Your task to perform on an android device: see tabs open on other devices in the chrome app Image 0: 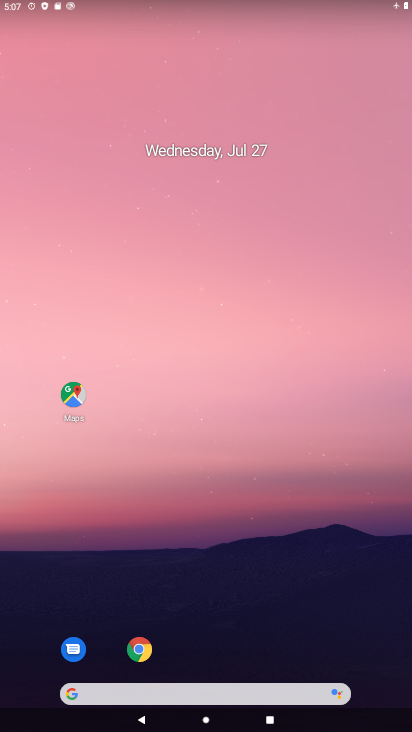
Step 0: click (139, 648)
Your task to perform on an android device: see tabs open on other devices in the chrome app Image 1: 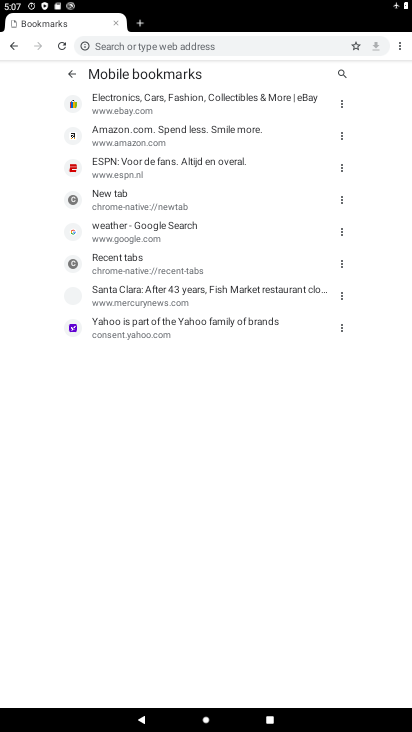
Step 1: click (399, 45)
Your task to perform on an android device: see tabs open on other devices in the chrome app Image 2: 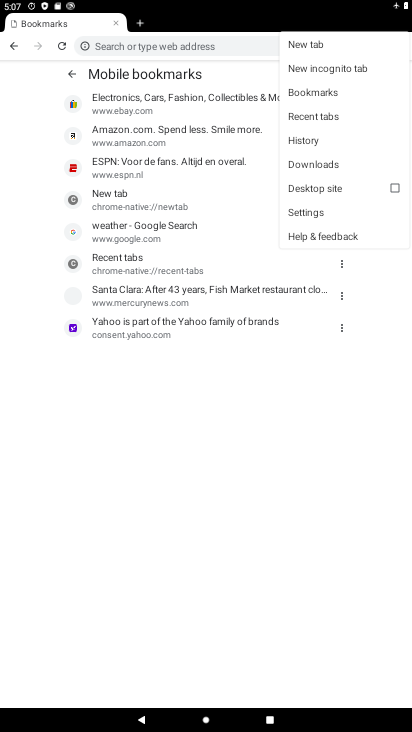
Step 2: click (325, 119)
Your task to perform on an android device: see tabs open on other devices in the chrome app Image 3: 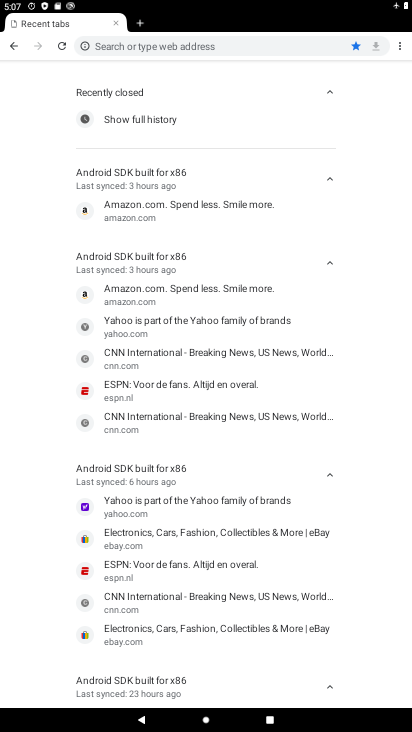
Step 3: task complete